Your task to perform on an android device: set an alarm Image 0: 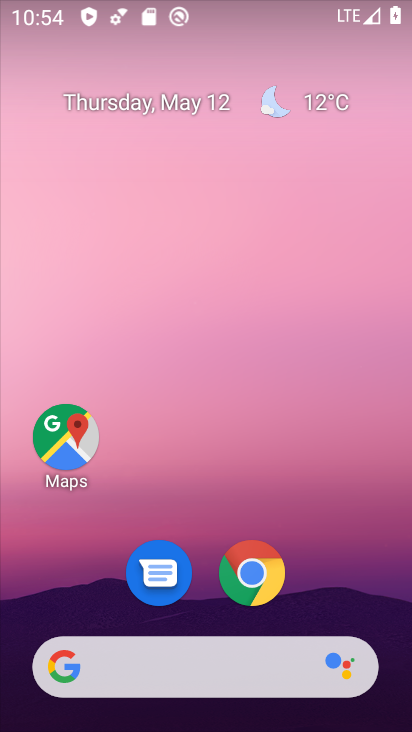
Step 0: drag from (178, 720) to (198, 102)
Your task to perform on an android device: set an alarm Image 1: 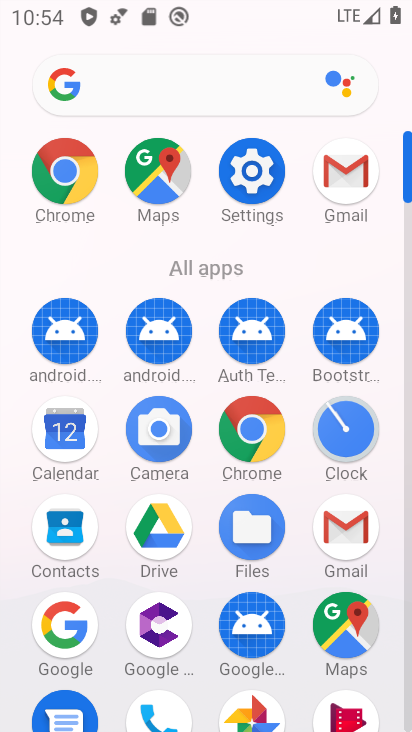
Step 1: click (343, 423)
Your task to perform on an android device: set an alarm Image 2: 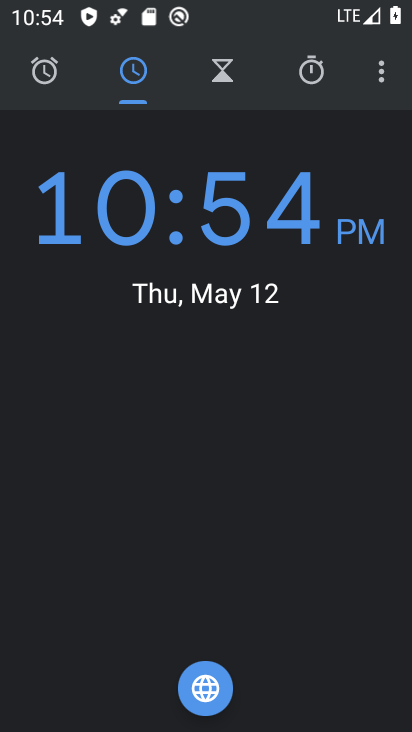
Step 2: click (45, 74)
Your task to perform on an android device: set an alarm Image 3: 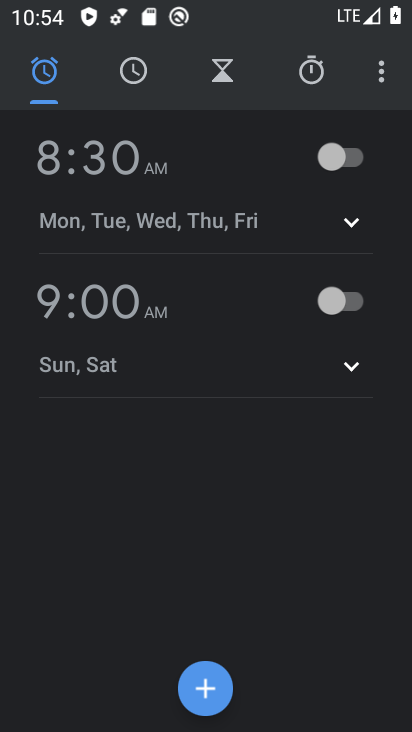
Step 3: click (200, 688)
Your task to perform on an android device: set an alarm Image 4: 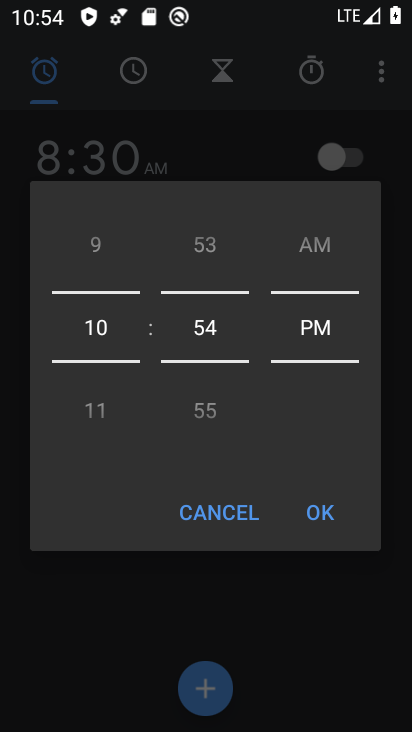
Step 4: click (317, 510)
Your task to perform on an android device: set an alarm Image 5: 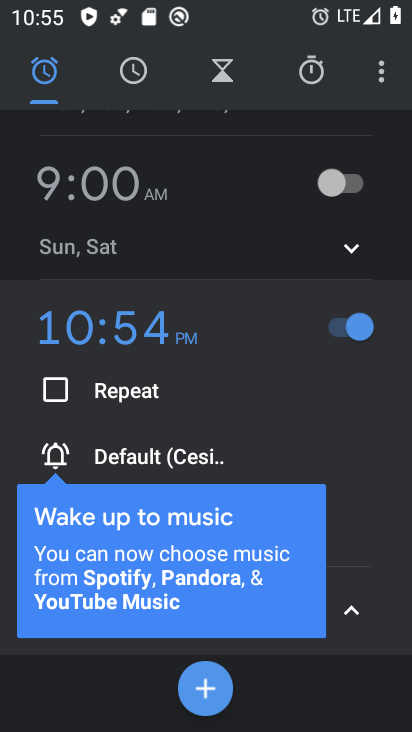
Step 5: task complete